Your task to perform on an android device: Search for "logitech g910" on ebay, select the first entry, add it to the cart, then select checkout. Image 0: 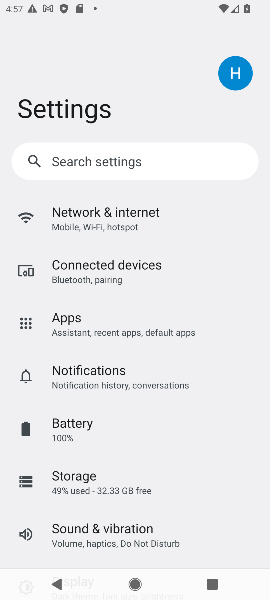
Step 0: press home button
Your task to perform on an android device: Search for "logitech g910" on ebay, select the first entry, add it to the cart, then select checkout. Image 1: 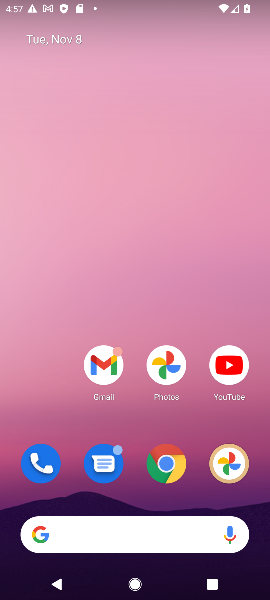
Step 1: click (173, 459)
Your task to perform on an android device: Search for "logitech g910" on ebay, select the first entry, add it to the cart, then select checkout. Image 2: 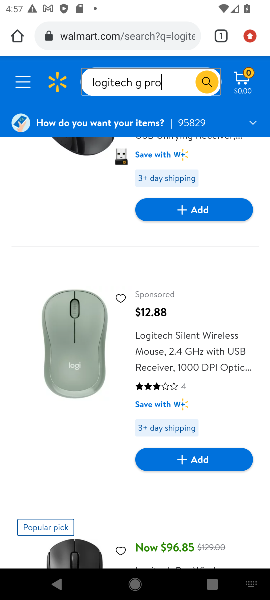
Step 2: click (113, 38)
Your task to perform on an android device: Search for "logitech g910" on ebay, select the first entry, add it to the cart, then select checkout. Image 3: 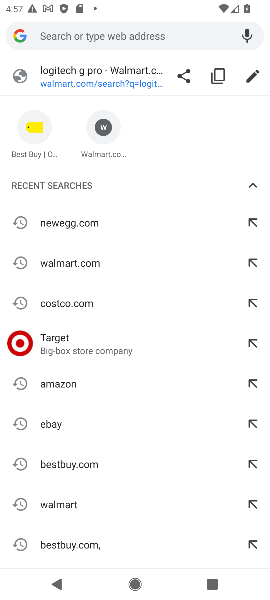
Step 3: click (36, 417)
Your task to perform on an android device: Search for "logitech g910" on ebay, select the first entry, add it to the cart, then select checkout. Image 4: 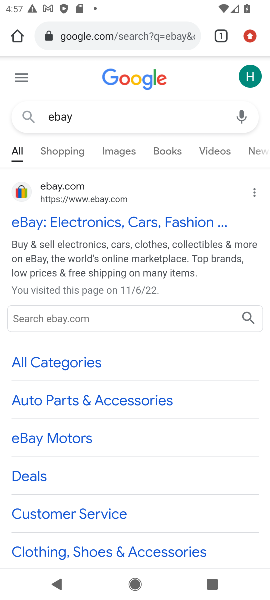
Step 4: click (40, 224)
Your task to perform on an android device: Search for "logitech g910" on ebay, select the first entry, add it to the cart, then select checkout. Image 5: 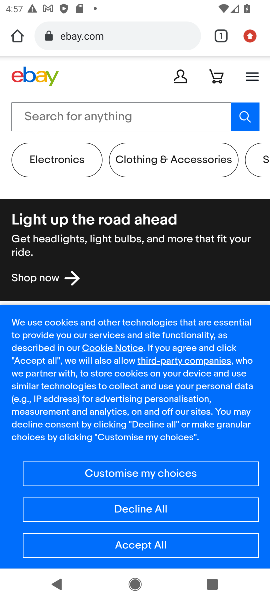
Step 5: click (100, 113)
Your task to perform on an android device: Search for "logitech g910" on ebay, select the first entry, add it to the cart, then select checkout. Image 6: 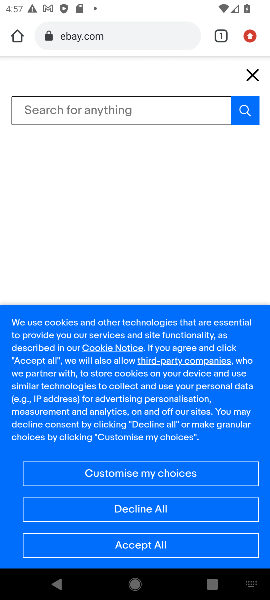
Step 6: type "logitech g910"
Your task to perform on an android device: Search for "logitech g910" on ebay, select the first entry, add it to the cart, then select checkout. Image 7: 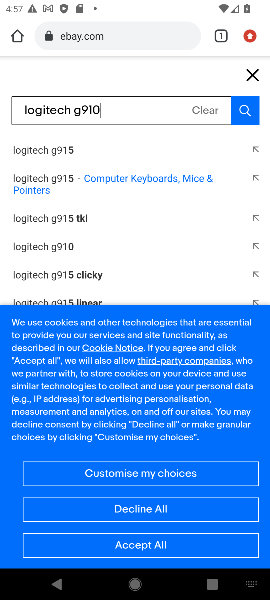
Step 7: click (253, 106)
Your task to perform on an android device: Search for "logitech g910" on ebay, select the first entry, add it to the cart, then select checkout. Image 8: 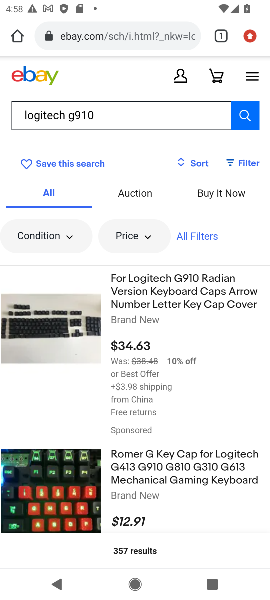
Step 8: click (156, 300)
Your task to perform on an android device: Search for "logitech g910" on ebay, select the first entry, add it to the cart, then select checkout. Image 9: 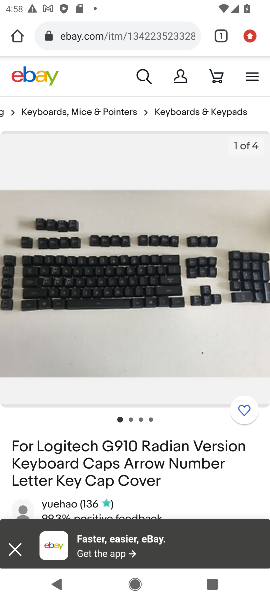
Step 9: drag from (127, 471) to (117, 222)
Your task to perform on an android device: Search for "logitech g910" on ebay, select the first entry, add it to the cart, then select checkout. Image 10: 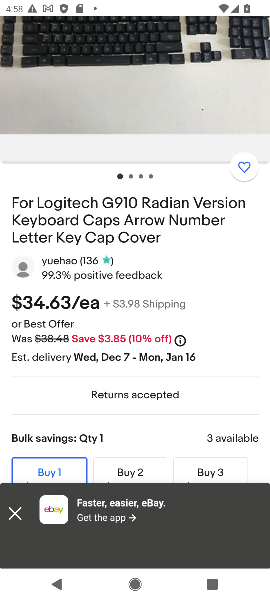
Step 10: drag from (114, 411) to (187, 165)
Your task to perform on an android device: Search for "logitech g910" on ebay, select the first entry, add it to the cart, then select checkout. Image 11: 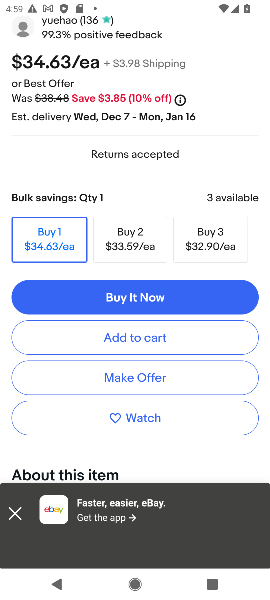
Step 11: drag from (214, 43) to (200, 228)
Your task to perform on an android device: Search for "logitech g910" on ebay, select the first entry, add it to the cart, then select checkout. Image 12: 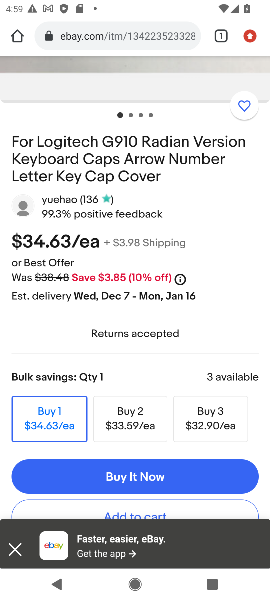
Step 12: click (126, 514)
Your task to perform on an android device: Search for "logitech g910" on ebay, select the first entry, add it to the cart, then select checkout. Image 13: 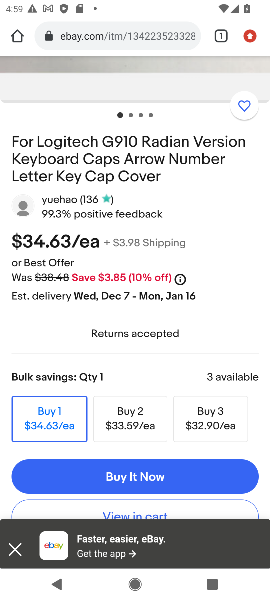
Step 13: click (126, 514)
Your task to perform on an android device: Search for "logitech g910" on ebay, select the first entry, add it to the cart, then select checkout. Image 14: 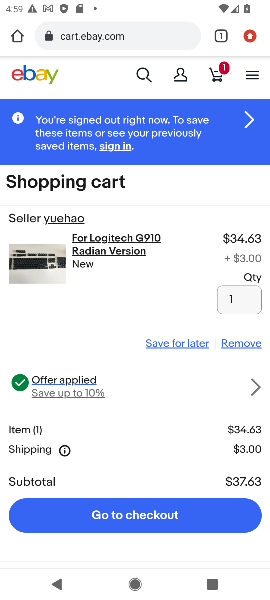
Step 14: click (126, 514)
Your task to perform on an android device: Search for "logitech g910" on ebay, select the first entry, add it to the cart, then select checkout. Image 15: 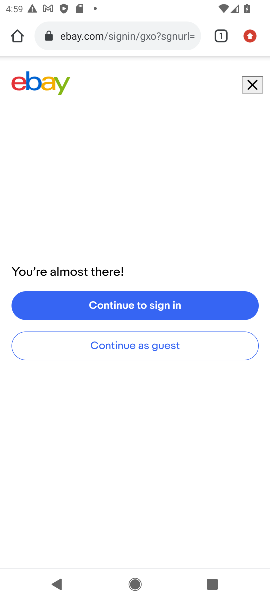
Step 15: task complete